Your task to perform on an android device: Open Youtube and go to "Your channel" Image 0: 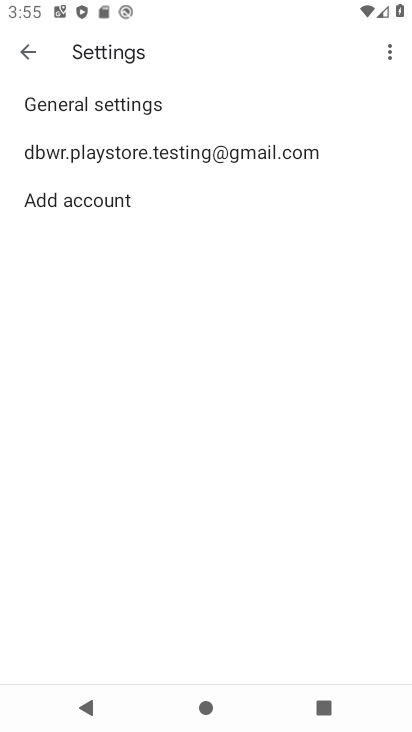
Step 0: press home button
Your task to perform on an android device: Open Youtube and go to "Your channel" Image 1: 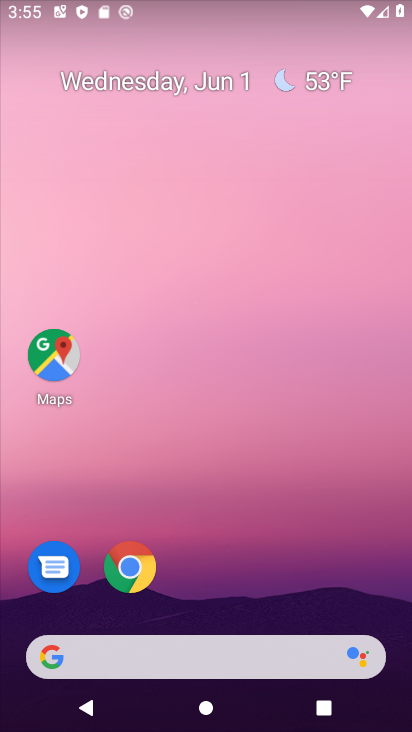
Step 1: drag from (202, 628) to (310, 119)
Your task to perform on an android device: Open Youtube and go to "Your channel" Image 2: 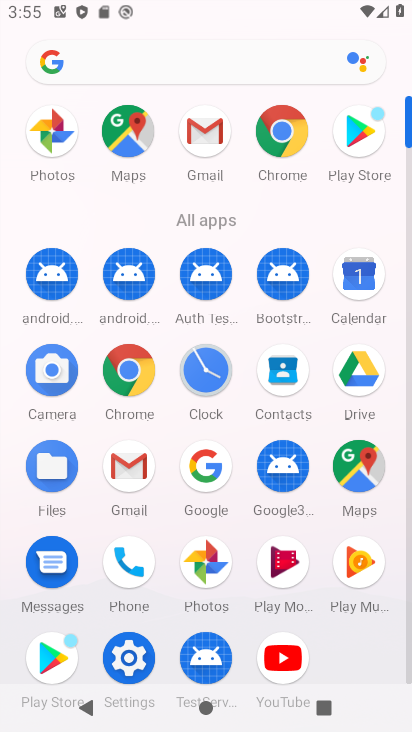
Step 2: drag from (204, 596) to (246, 418)
Your task to perform on an android device: Open Youtube and go to "Your channel" Image 3: 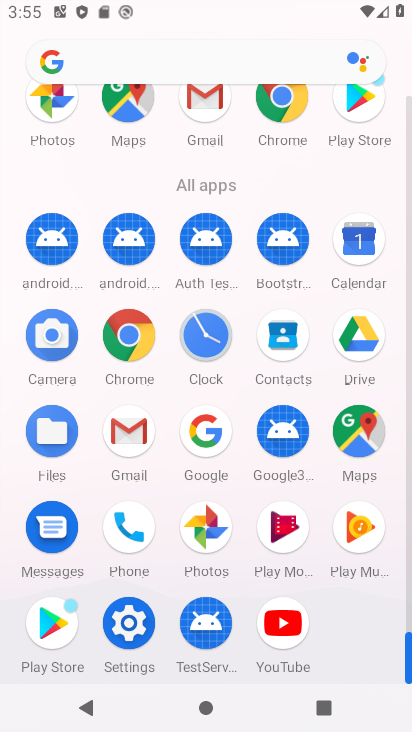
Step 3: click (284, 634)
Your task to perform on an android device: Open Youtube and go to "Your channel" Image 4: 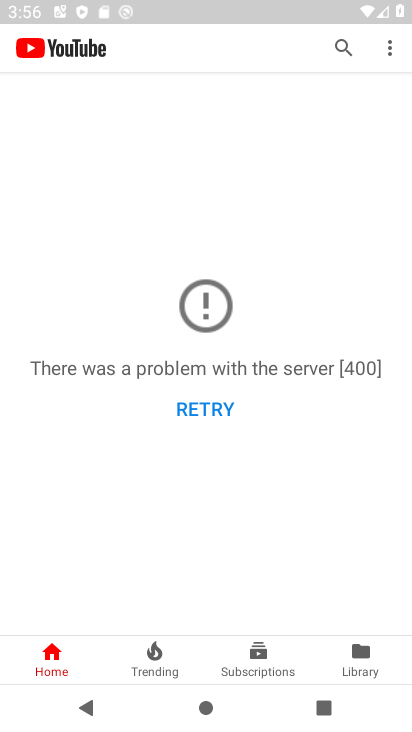
Step 4: click (369, 669)
Your task to perform on an android device: Open Youtube and go to "Your channel" Image 5: 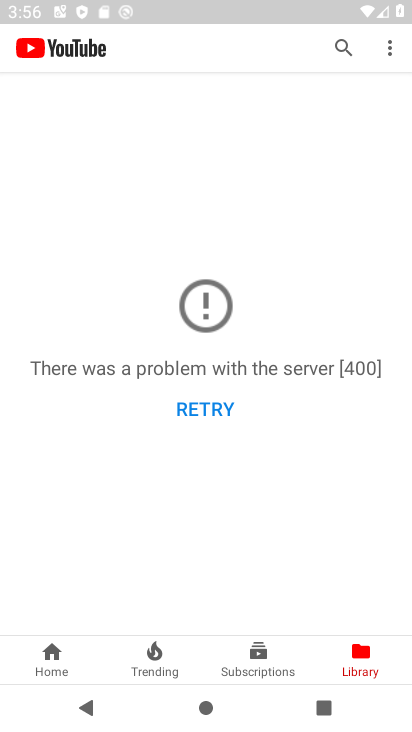
Step 5: task complete